Your task to perform on an android device: Go to Reddit.com Image 0: 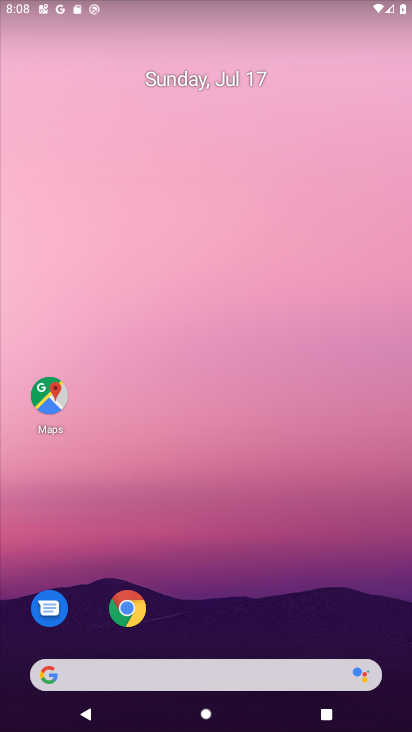
Step 0: drag from (156, 625) to (293, 76)
Your task to perform on an android device: Go to Reddit.com Image 1: 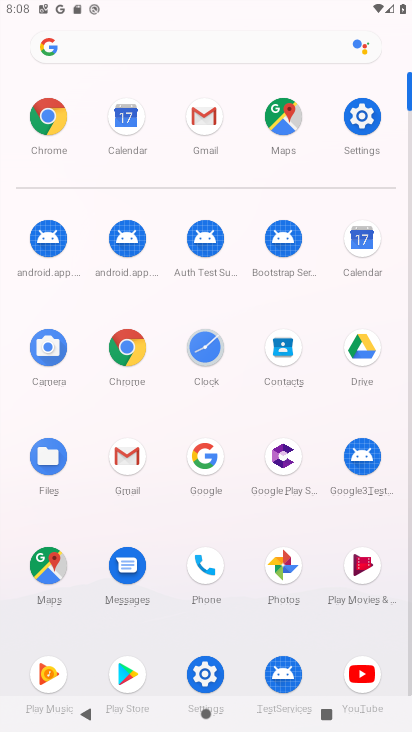
Step 1: click (191, 456)
Your task to perform on an android device: Go to Reddit.com Image 2: 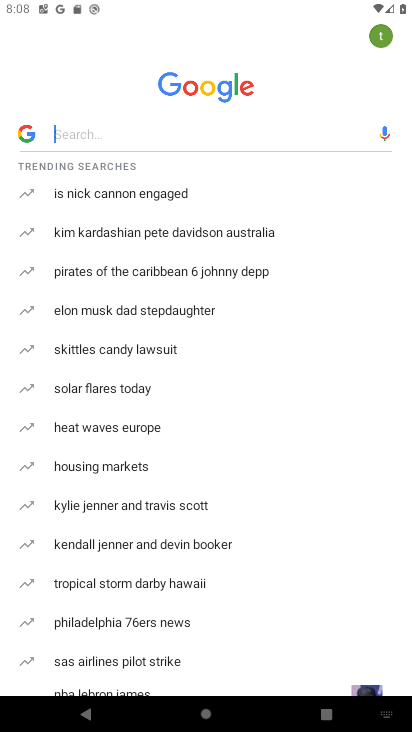
Step 2: click (86, 134)
Your task to perform on an android device: Go to Reddit.com Image 3: 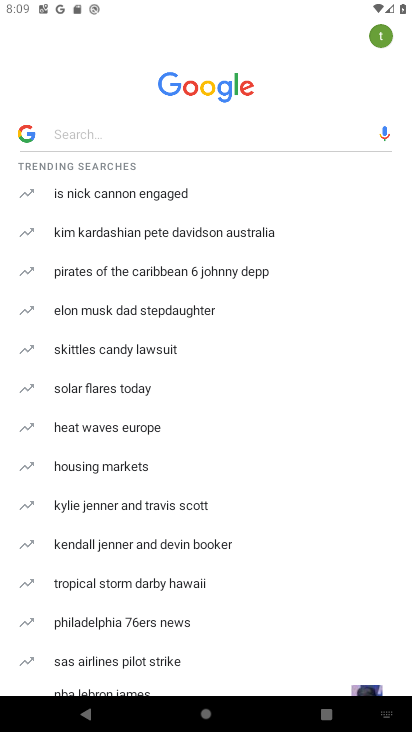
Step 3: click (71, 133)
Your task to perform on an android device: Go to Reddit.com Image 4: 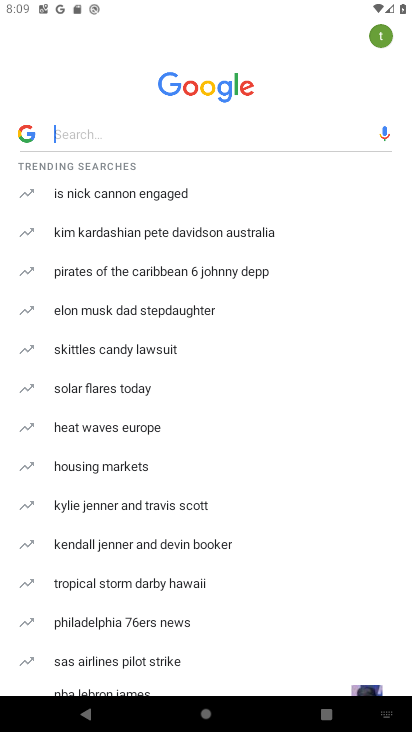
Step 4: drag from (151, 597) to (176, 208)
Your task to perform on an android device: Go to Reddit.com Image 5: 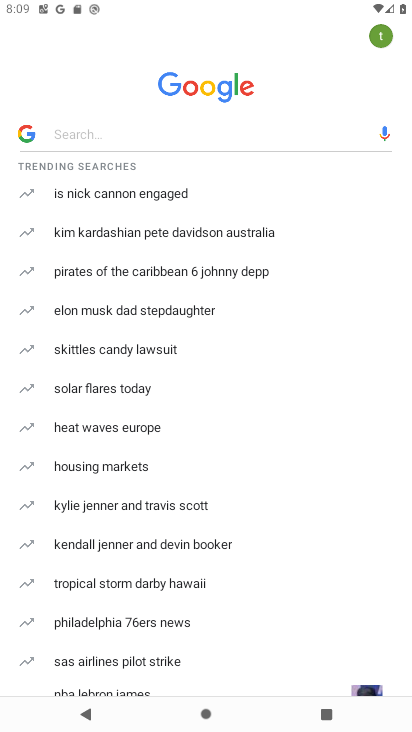
Step 5: type "Reddit.com"
Your task to perform on an android device: Go to Reddit.com Image 6: 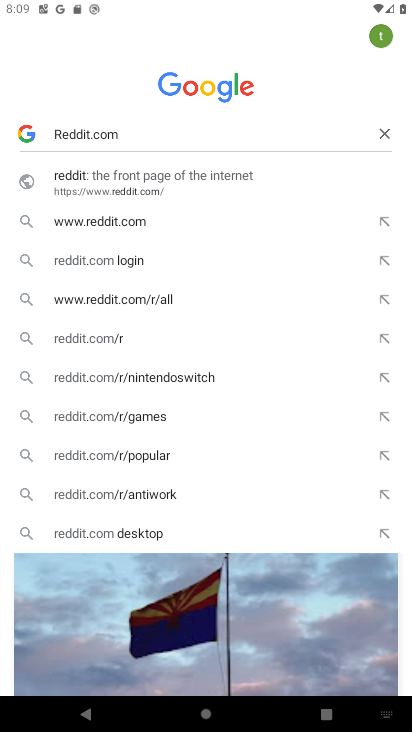
Step 6: click (97, 171)
Your task to perform on an android device: Go to Reddit.com Image 7: 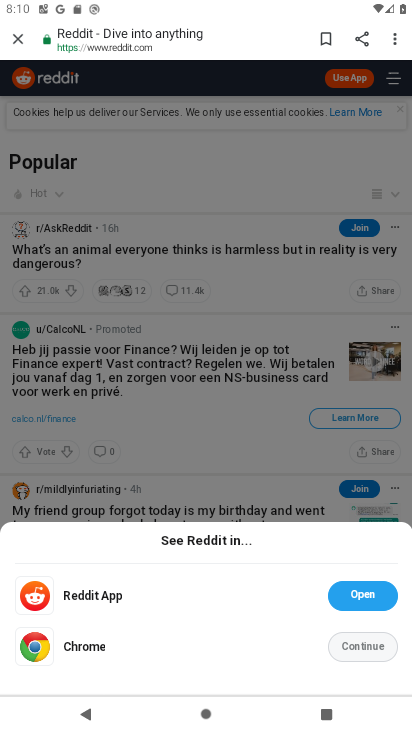
Step 7: task complete